Your task to perform on an android device: Show me recent news Image 0: 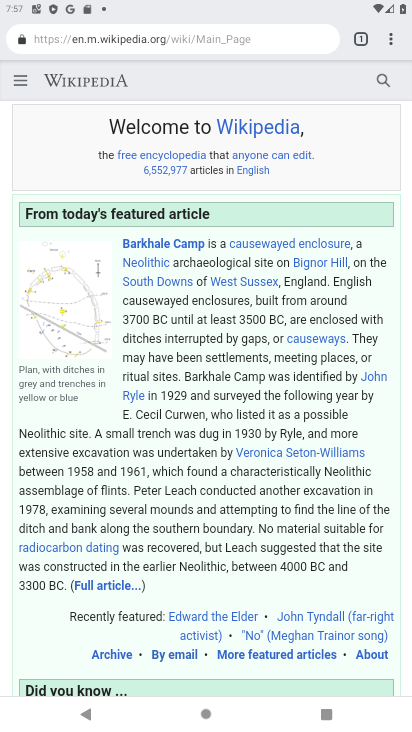
Step 0: press home button
Your task to perform on an android device: Show me recent news Image 1: 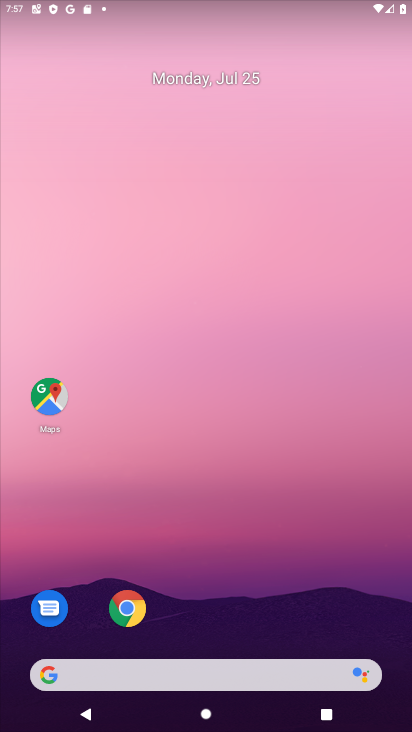
Step 1: drag from (214, 611) to (220, 116)
Your task to perform on an android device: Show me recent news Image 2: 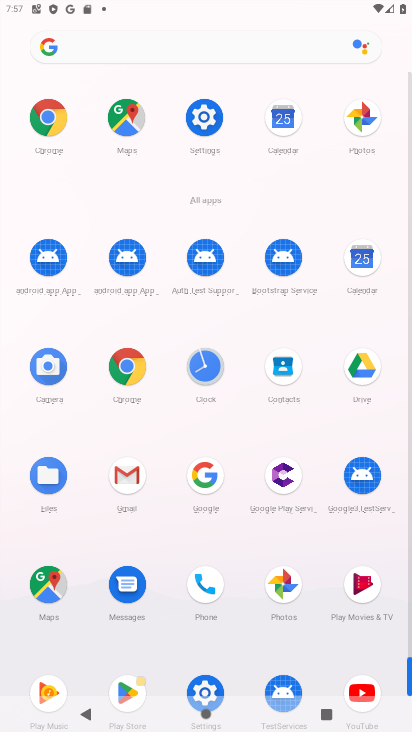
Step 2: click (208, 508)
Your task to perform on an android device: Show me recent news Image 3: 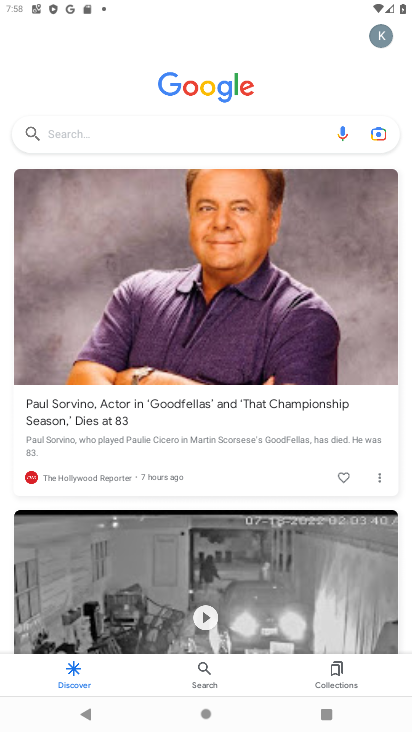
Step 3: click (165, 133)
Your task to perform on an android device: Show me recent news Image 4: 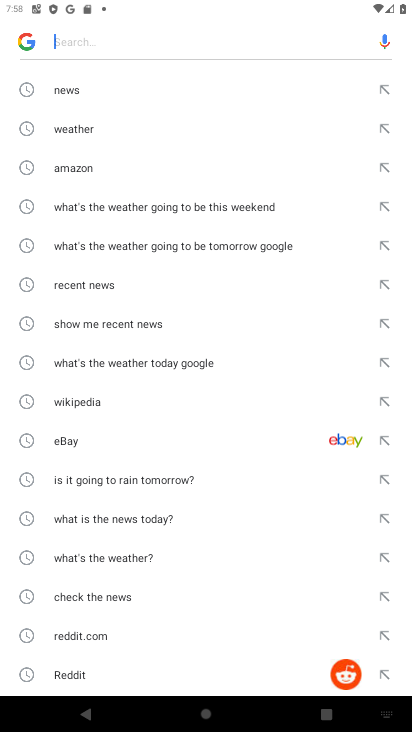
Step 4: click (67, 281)
Your task to perform on an android device: Show me recent news Image 5: 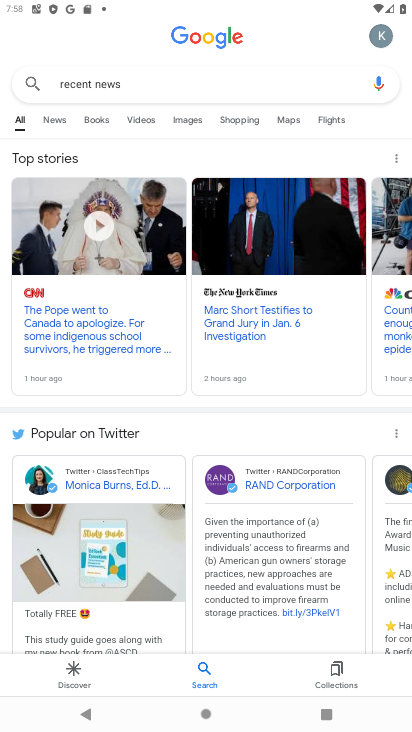
Step 5: click (66, 116)
Your task to perform on an android device: Show me recent news Image 6: 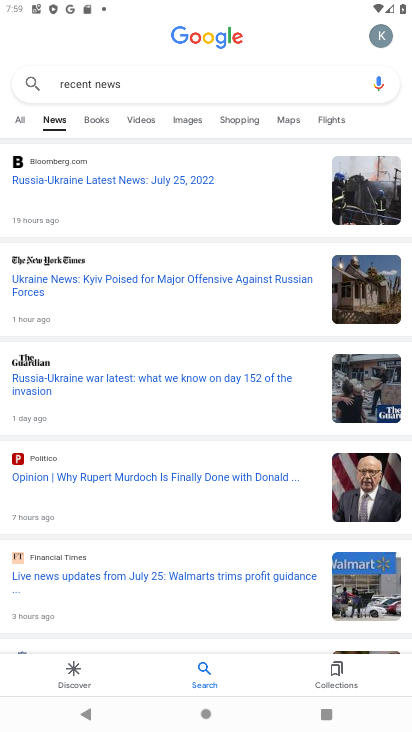
Step 6: task complete